Your task to perform on an android device: Open Youtube and go to the subscriptions tab Image 0: 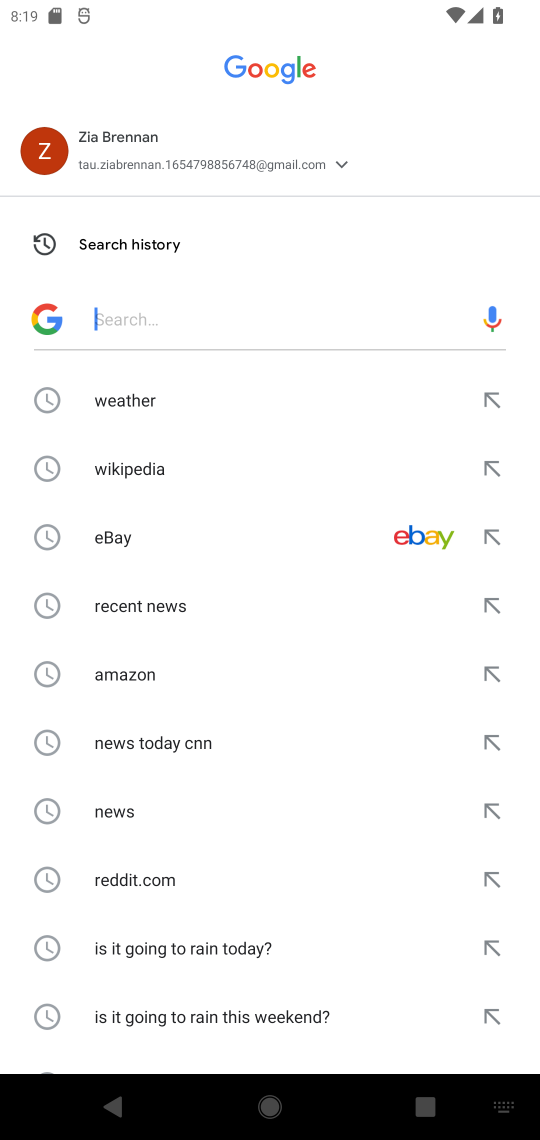
Step 0: press home button
Your task to perform on an android device: Open Youtube and go to the subscriptions tab Image 1: 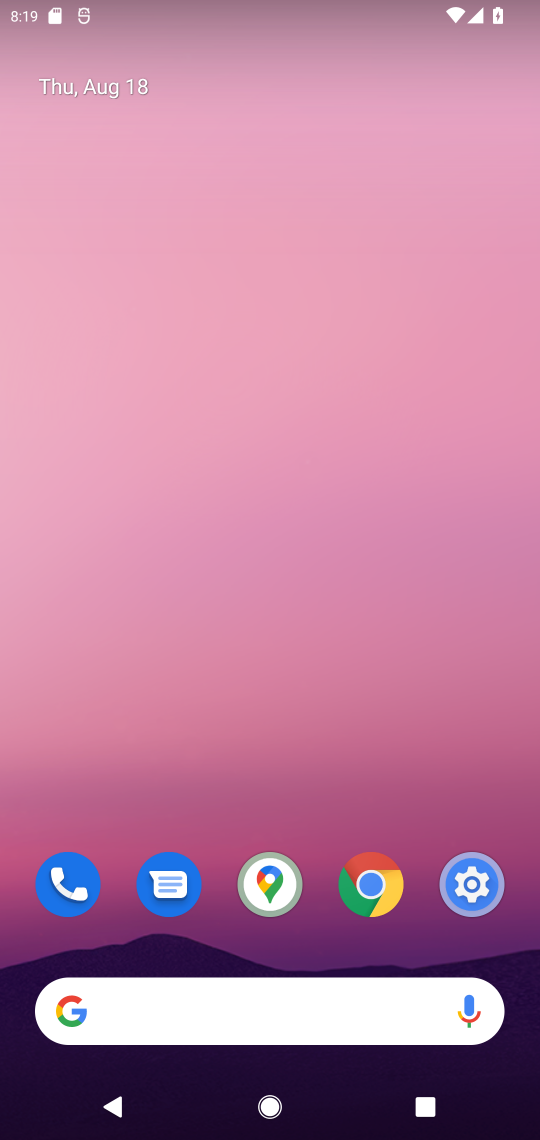
Step 1: drag from (198, 953) to (157, 307)
Your task to perform on an android device: Open Youtube and go to the subscriptions tab Image 2: 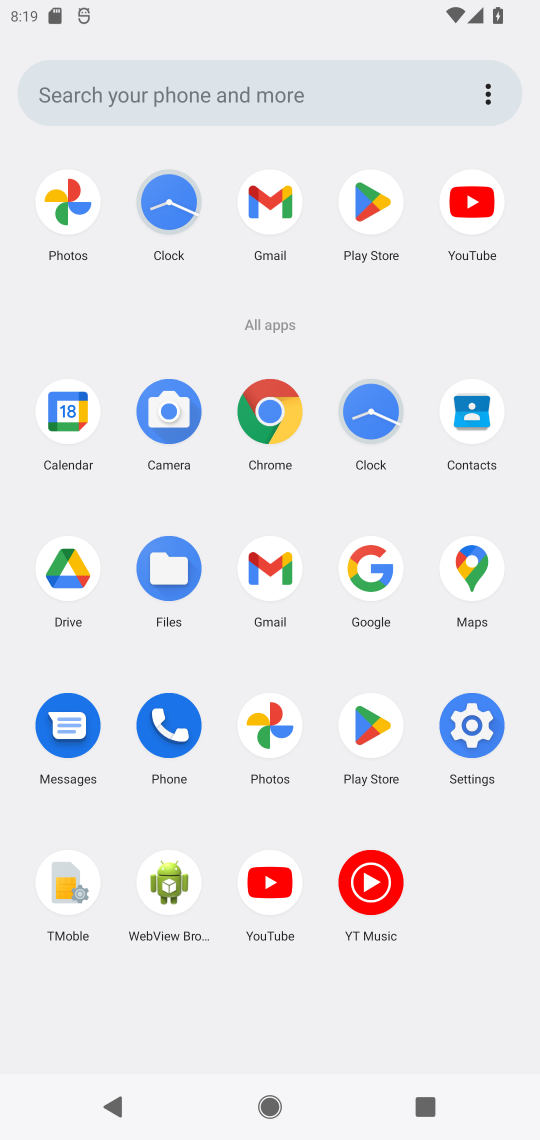
Step 2: click (353, 851)
Your task to perform on an android device: Open Youtube and go to the subscriptions tab Image 3: 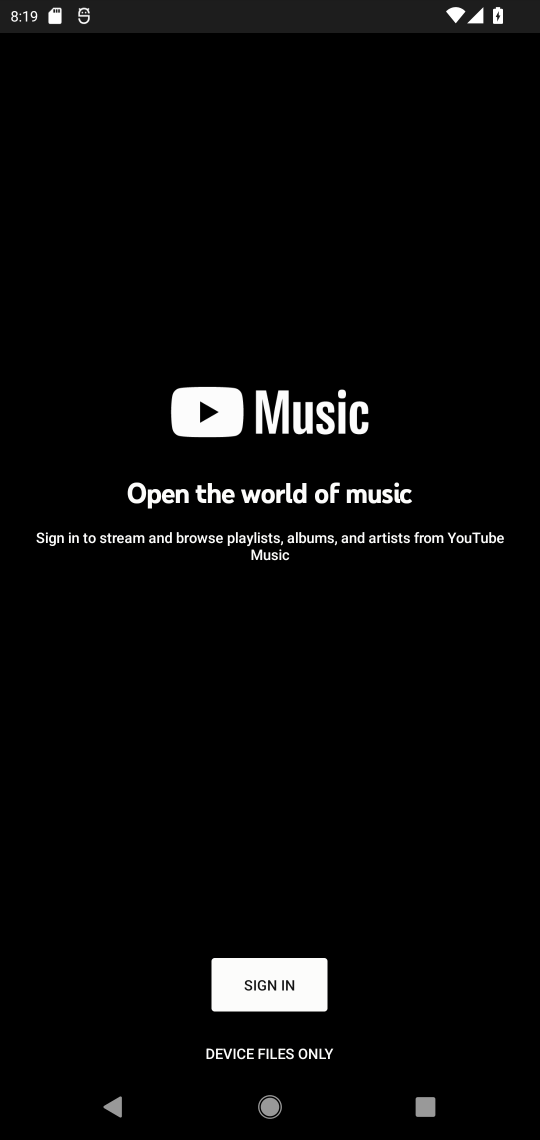
Step 3: press back button
Your task to perform on an android device: Open Youtube and go to the subscriptions tab Image 4: 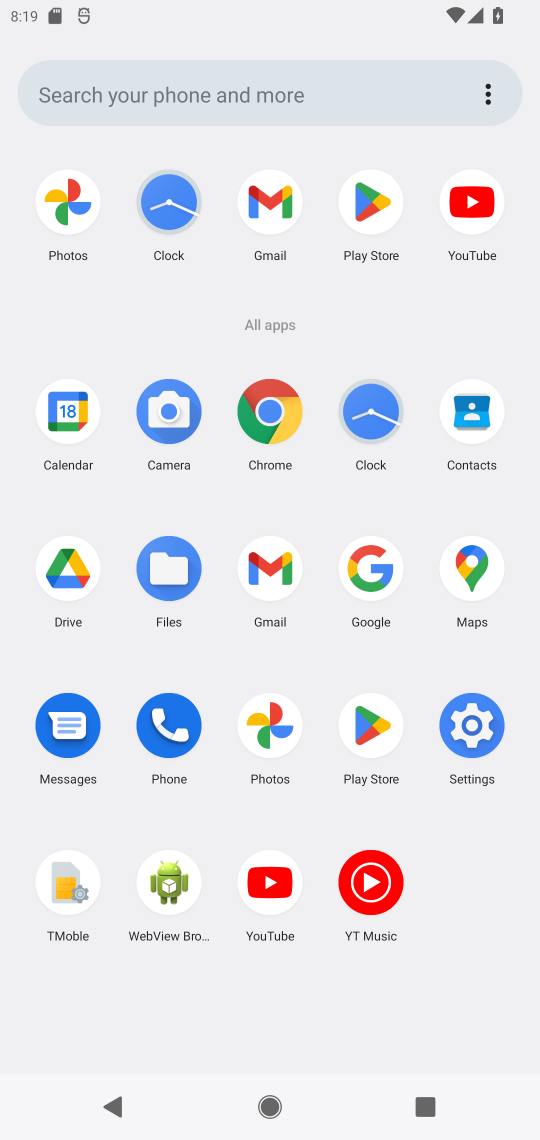
Step 4: click (467, 205)
Your task to perform on an android device: Open Youtube and go to the subscriptions tab Image 5: 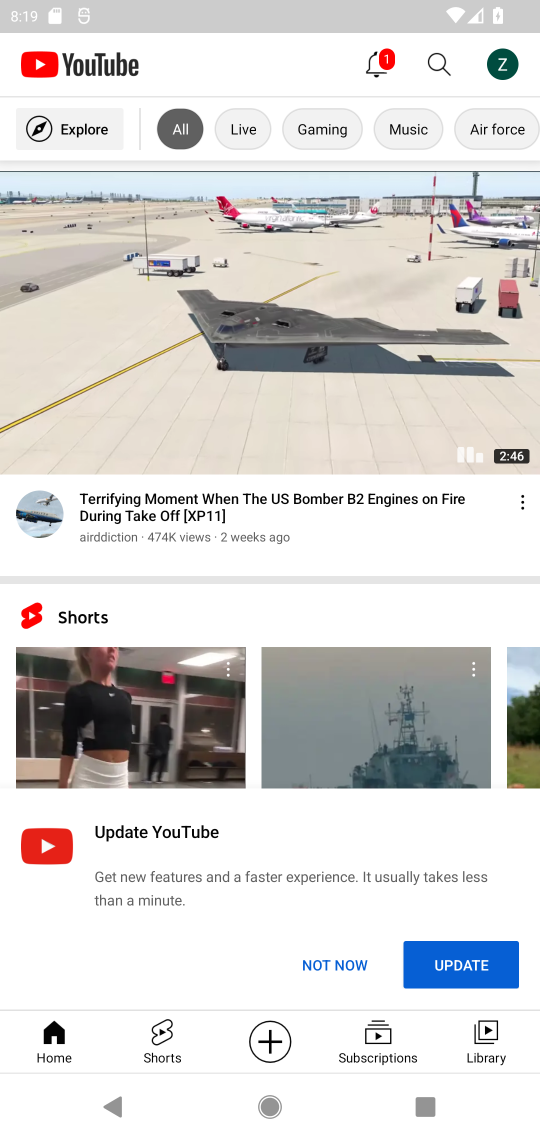
Step 5: click (386, 1046)
Your task to perform on an android device: Open Youtube and go to the subscriptions tab Image 6: 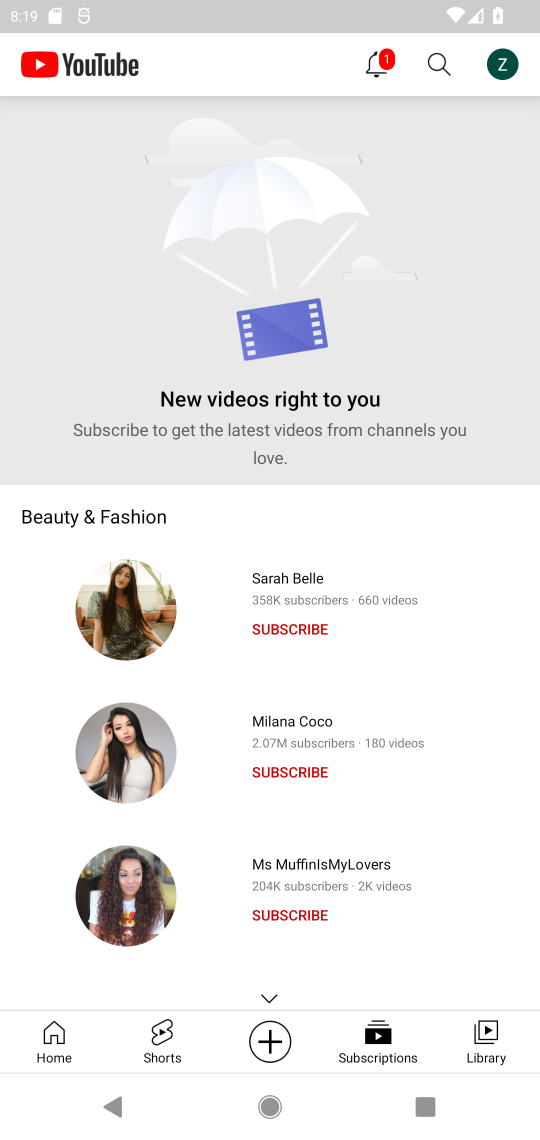
Step 6: task complete